Your task to perform on an android device: What's the weather going to be tomorrow? Image 0: 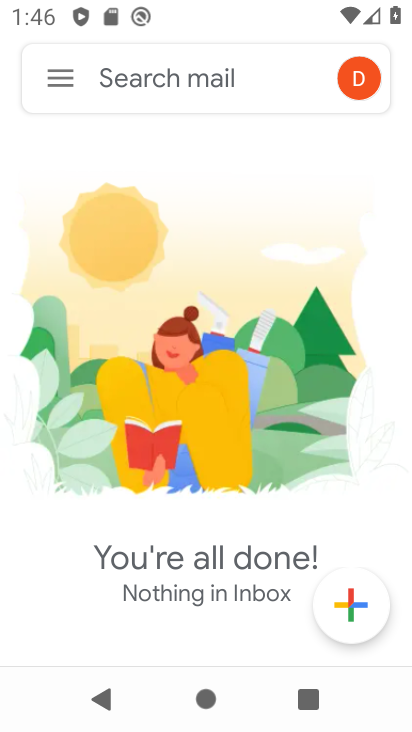
Step 0: press home button
Your task to perform on an android device: What's the weather going to be tomorrow? Image 1: 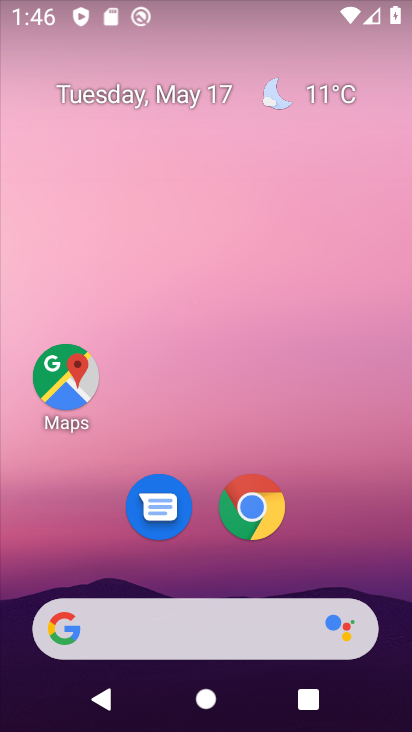
Step 1: click (141, 633)
Your task to perform on an android device: What's the weather going to be tomorrow? Image 2: 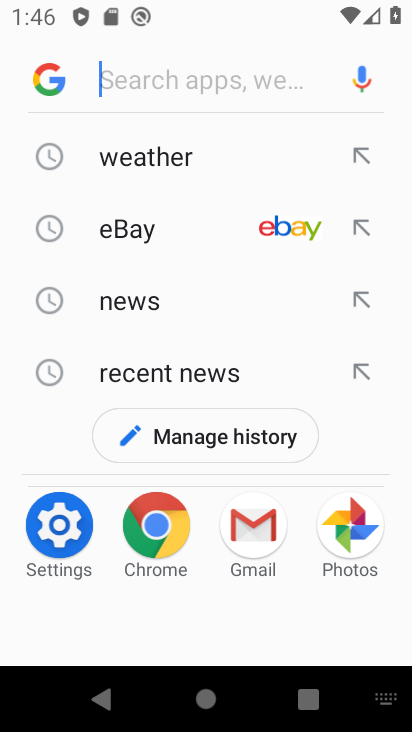
Step 2: click (202, 166)
Your task to perform on an android device: What's the weather going to be tomorrow? Image 3: 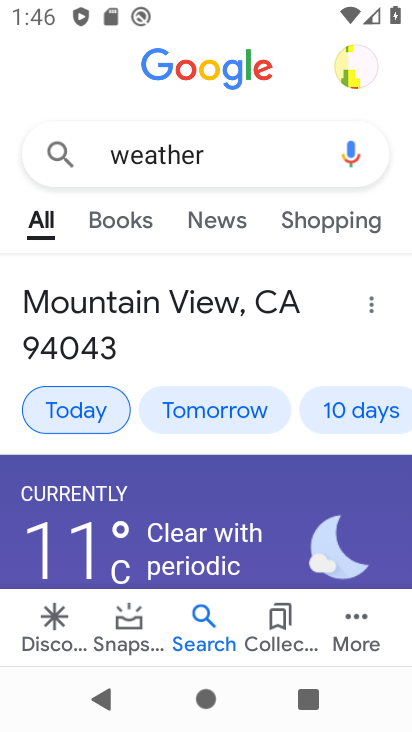
Step 3: task complete